Your task to perform on an android device: turn off data saver in the chrome app Image 0: 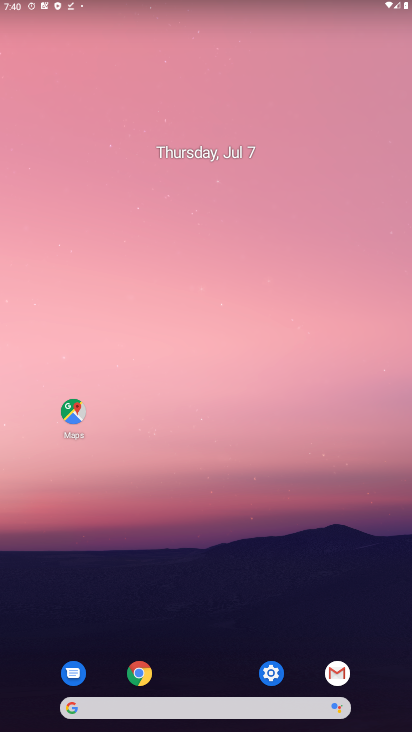
Step 0: click (142, 683)
Your task to perform on an android device: turn off data saver in the chrome app Image 1: 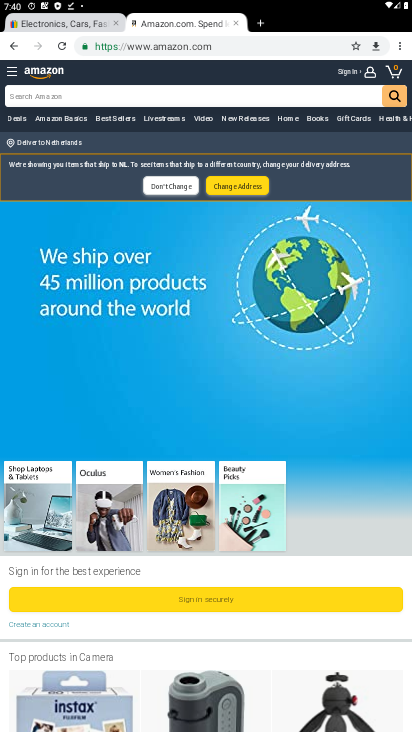
Step 1: click (400, 48)
Your task to perform on an android device: turn off data saver in the chrome app Image 2: 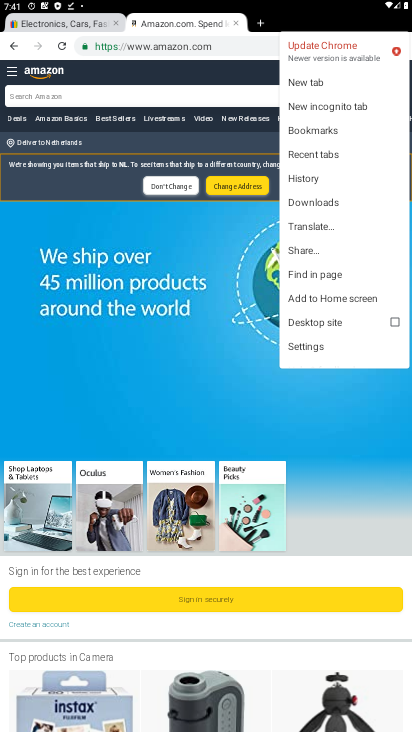
Step 2: click (309, 346)
Your task to perform on an android device: turn off data saver in the chrome app Image 3: 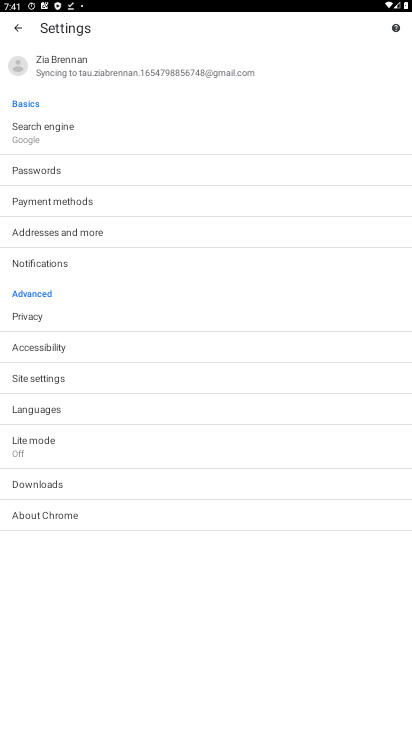
Step 3: click (71, 440)
Your task to perform on an android device: turn off data saver in the chrome app Image 4: 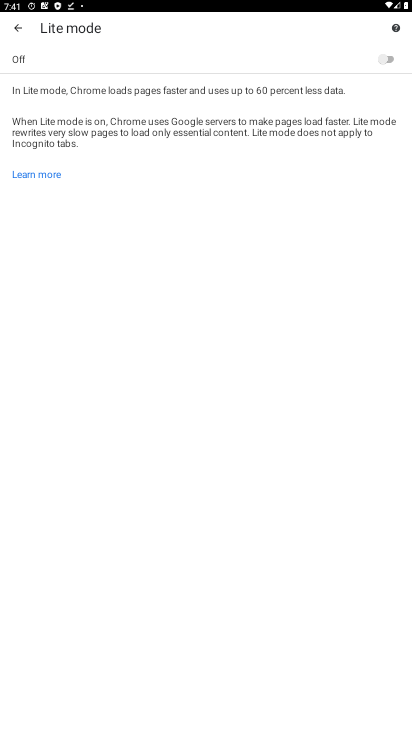
Step 4: click (394, 53)
Your task to perform on an android device: turn off data saver in the chrome app Image 5: 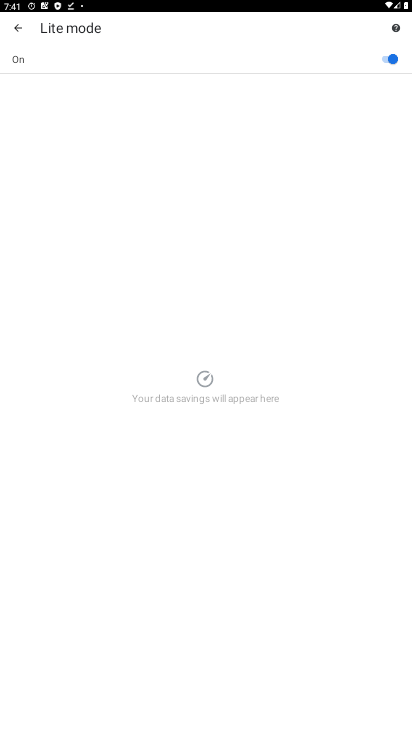
Step 5: click (394, 53)
Your task to perform on an android device: turn off data saver in the chrome app Image 6: 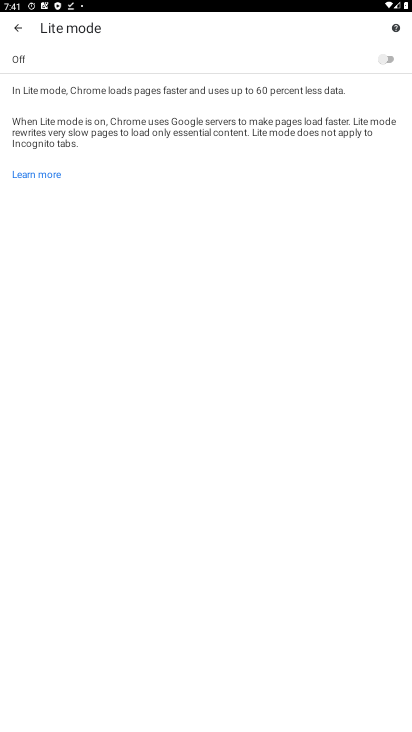
Step 6: task complete